Your task to perform on an android device: open a bookmark in the chrome app Image 0: 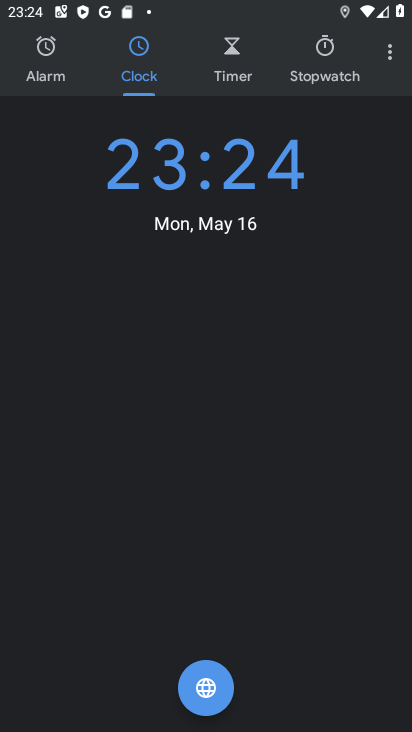
Step 0: press home button
Your task to perform on an android device: open a bookmark in the chrome app Image 1: 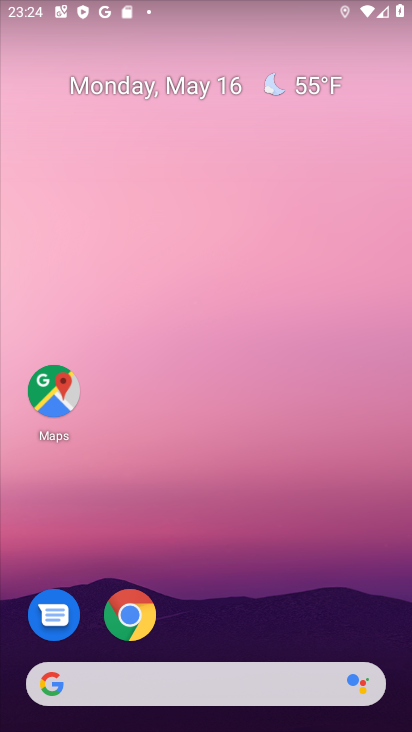
Step 1: click (127, 617)
Your task to perform on an android device: open a bookmark in the chrome app Image 2: 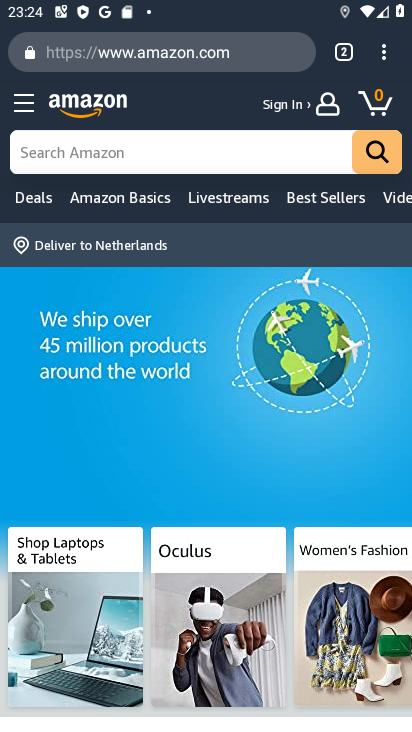
Step 2: task complete